Your task to perform on an android device: Open internet settings Image 0: 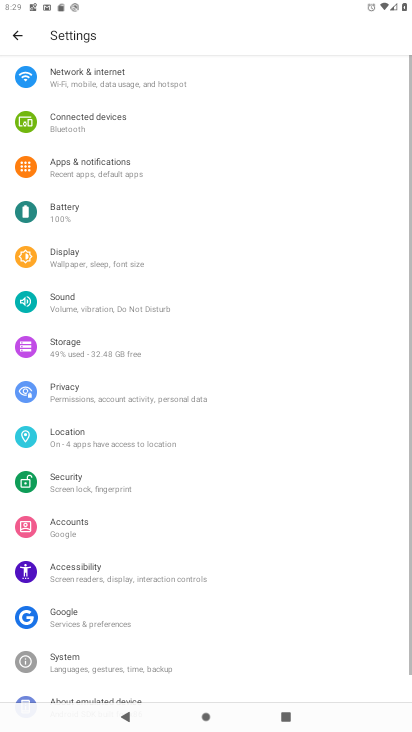
Step 0: press home button
Your task to perform on an android device: Open internet settings Image 1: 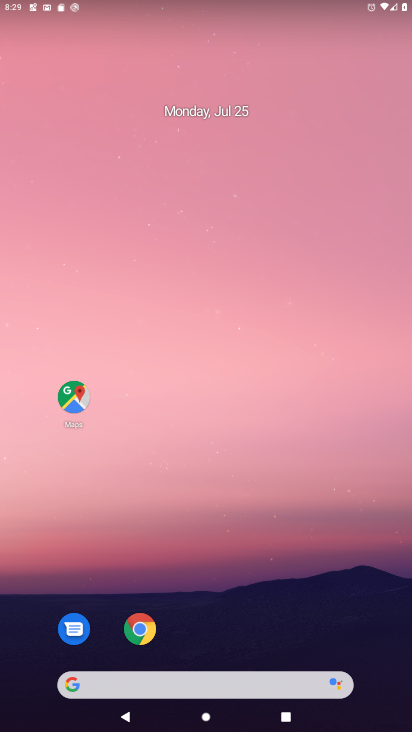
Step 1: drag from (161, 693) to (198, 150)
Your task to perform on an android device: Open internet settings Image 2: 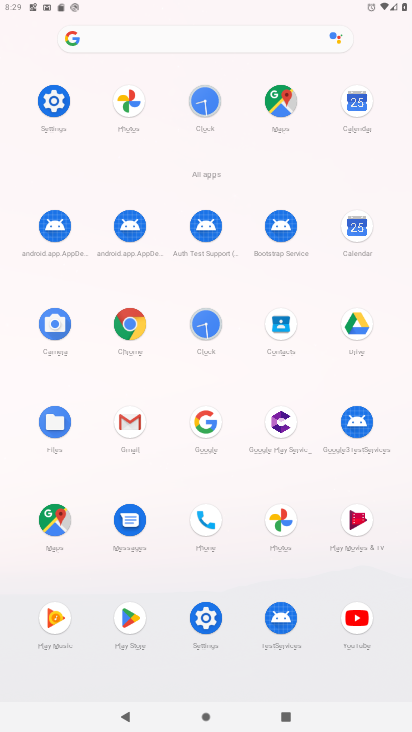
Step 2: click (53, 99)
Your task to perform on an android device: Open internet settings Image 3: 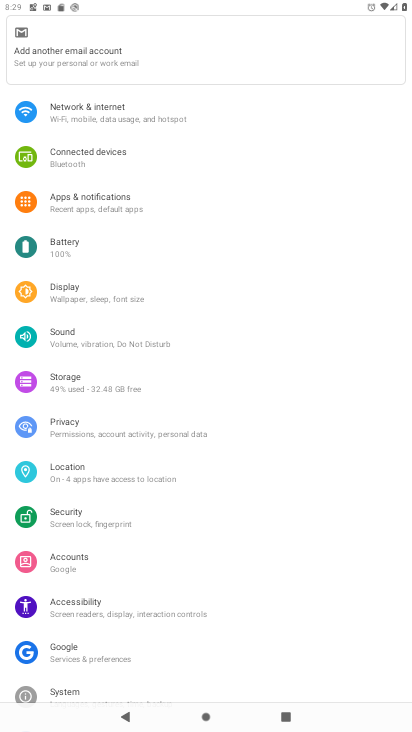
Step 3: click (89, 116)
Your task to perform on an android device: Open internet settings Image 4: 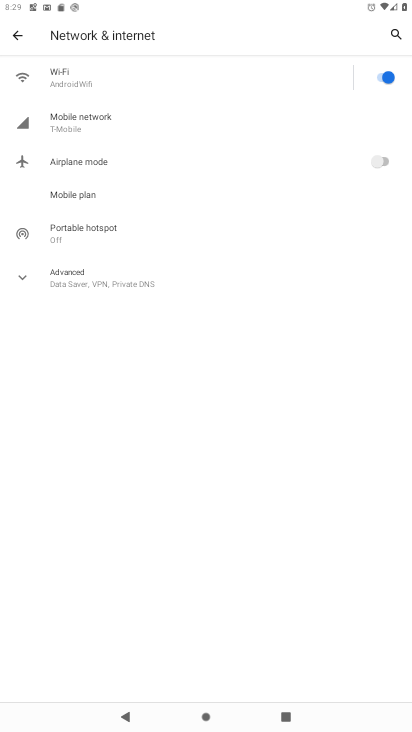
Step 4: task complete